Your task to perform on an android device: change the clock display to digital Image 0: 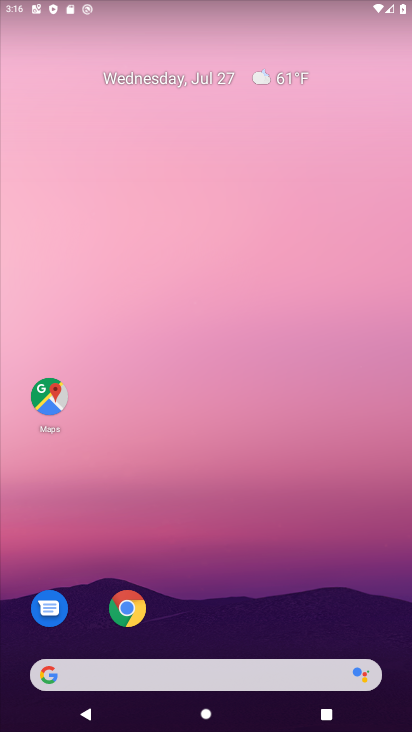
Step 0: drag from (322, 602) to (322, 140)
Your task to perform on an android device: change the clock display to digital Image 1: 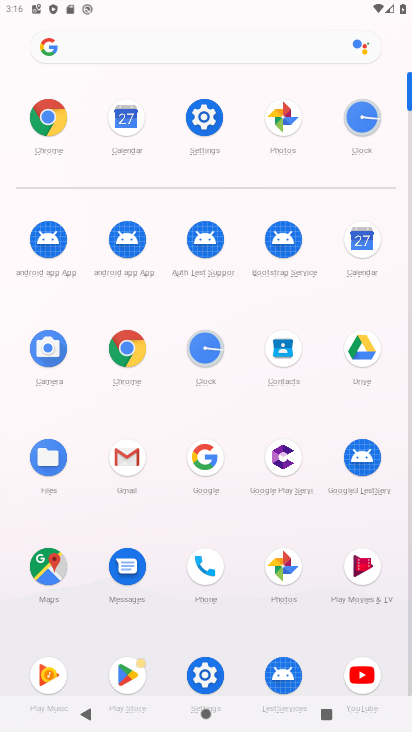
Step 1: click (209, 344)
Your task to perform on an android device: change the clock display to digital Image 2: 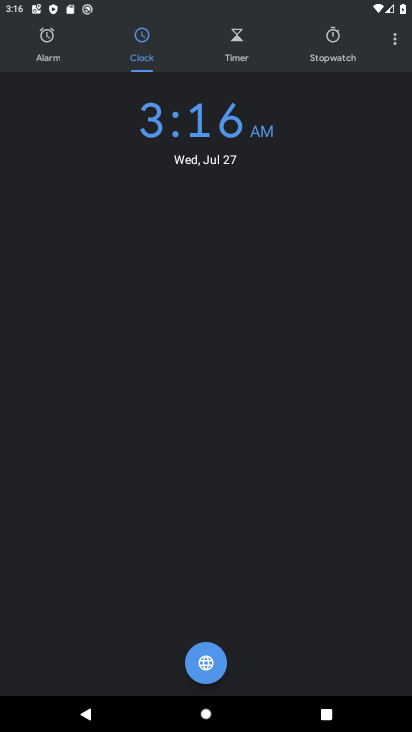
Step 2: click (399, 29)
Your task to perform on an android device: change the clock display to digital Image 3: 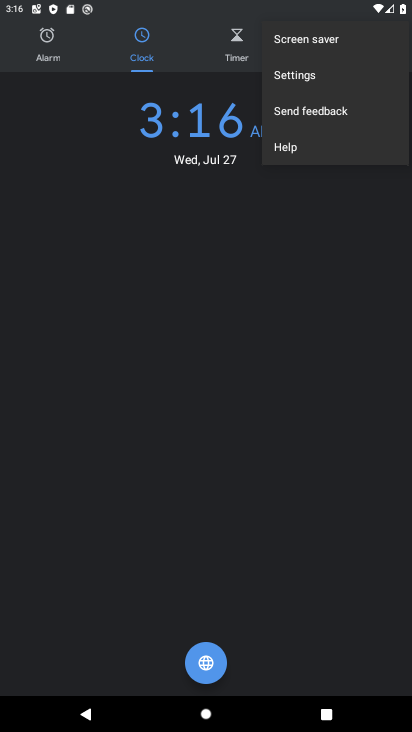
Step 3: click (299, 89)
Your task to perform on an android device: change the clock display to digital Image 4: 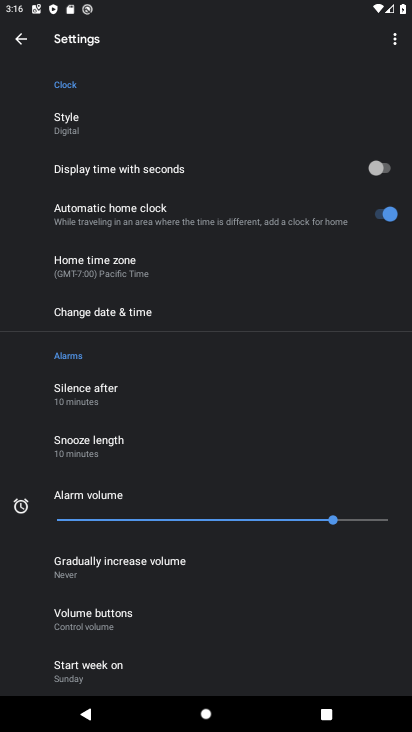
Step 4: click (68, 129)
Your task to perform on an android device: change the clock display to digital Image 5: 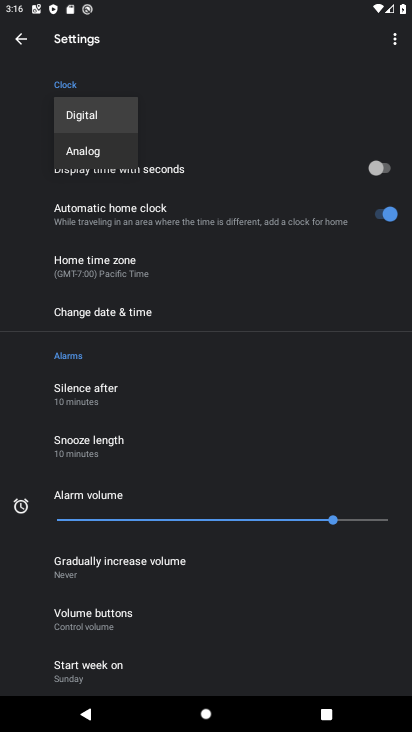
Step 5: click (119, 119)
Your task to perform on an android device: change the clock display to digital Image 6: 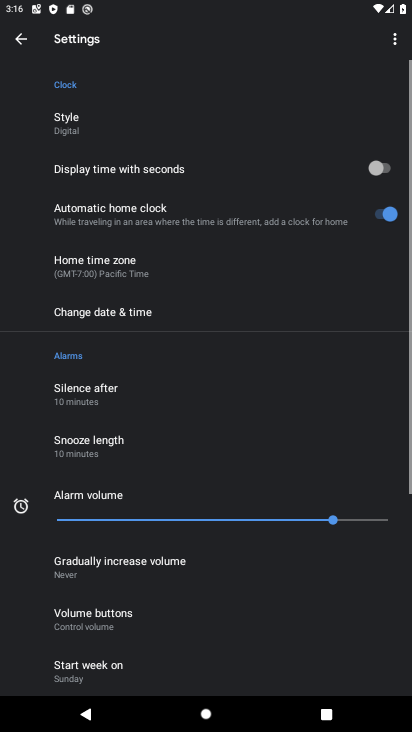
Step 6: task complete